Your task to perform on an android device: move an email to a new category in the gmail app Image 0: 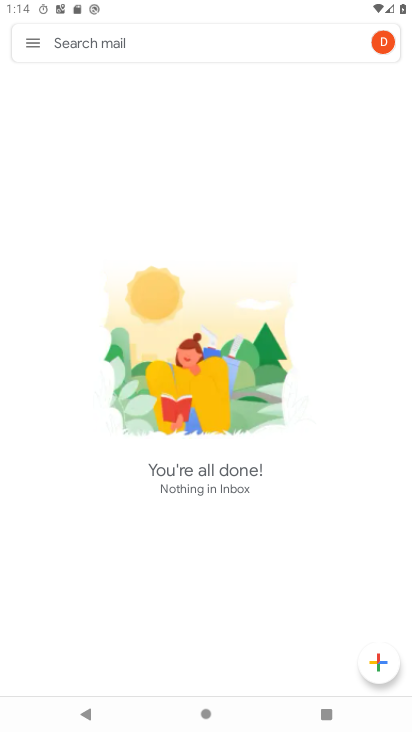
Step 0: press home button
Your task to perform on an android device: move an email to a new category in the gmail app Image 1: 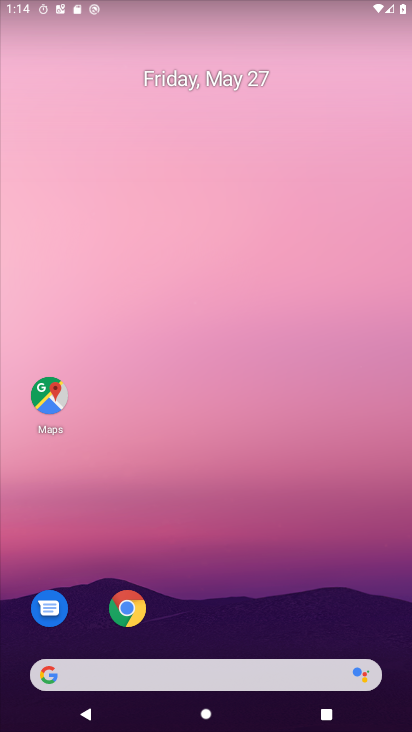
Step 1: drag from (395, 693) to (323, 221)
Your task to perform on an android device: move an email to a new category in the gmail app Image 2: 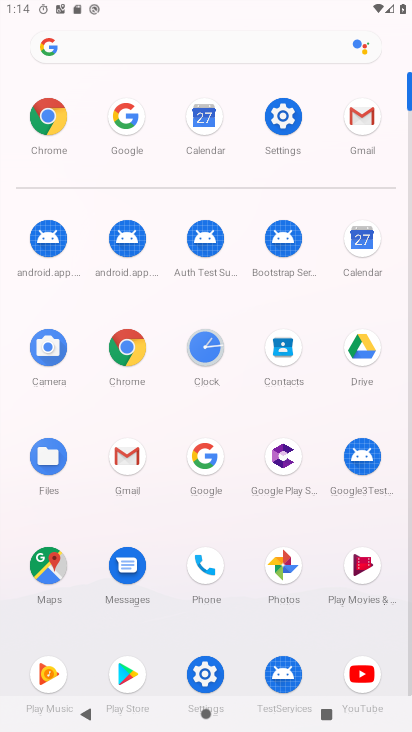
Step 2: click (359, 117)
Your task to perform on an android device: move an email to a new category in the gmail app Image 3: 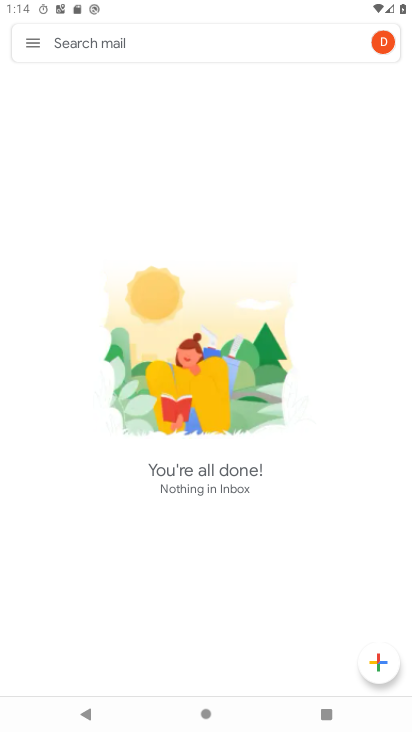
Step 3: click (35, 38)
Your task to perform on an android device: move an email to a new category in the gmail app Image 4: 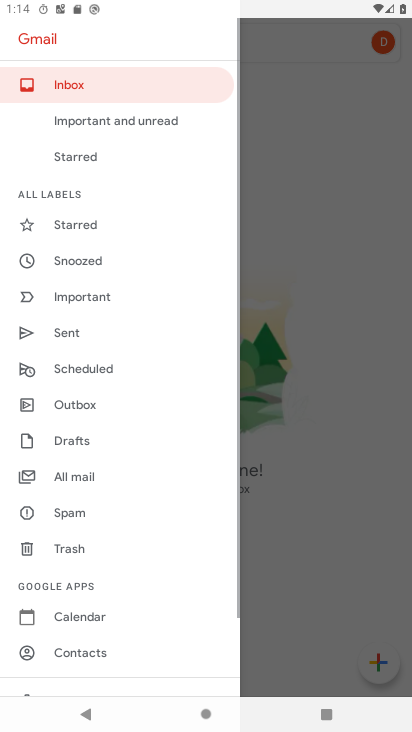
Step 4: click (88, 94)
Your task to perform on an android device: move an email to a new category in the gmail app Image 5: 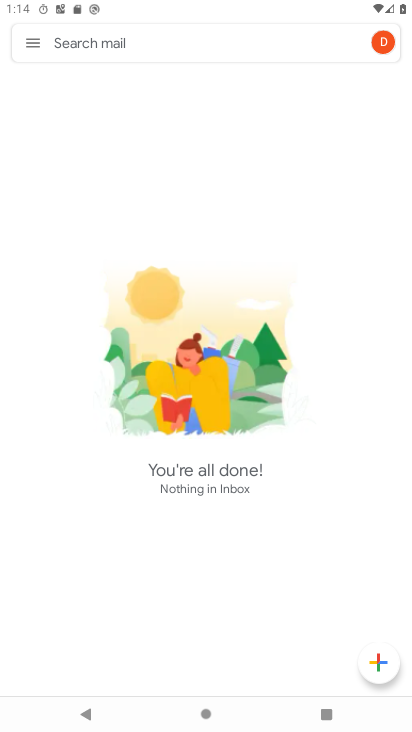
Step 5: task complete